Your task to perform on an android device: Go to Maps Image 0: 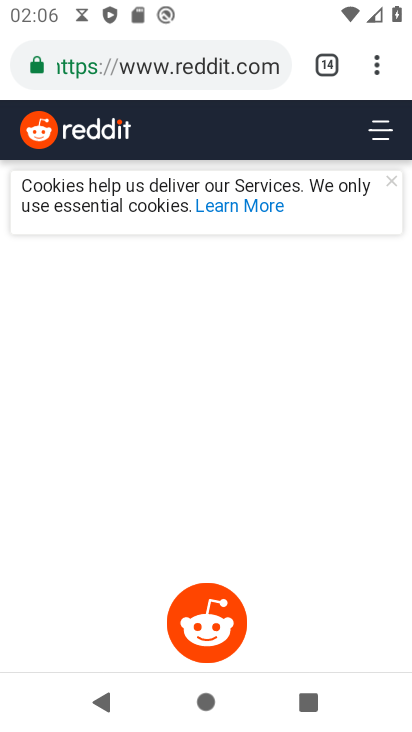
Step 0: press home button
Your task to perform on an android device: Go to Maps Image 1: 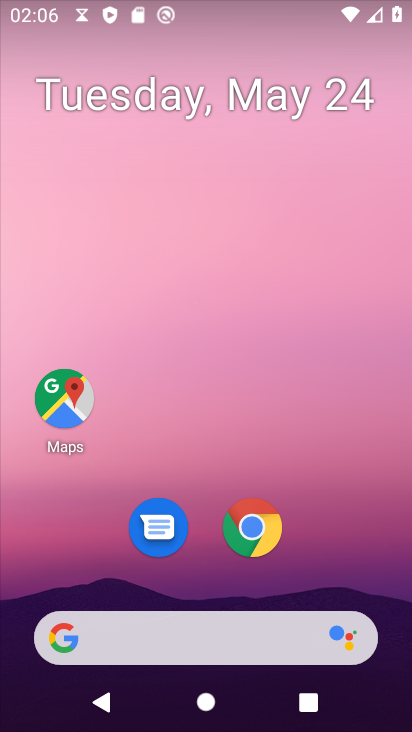
Step 1: click (65, 405)
Your task to perform on an android device: Go to Maps Image 2: 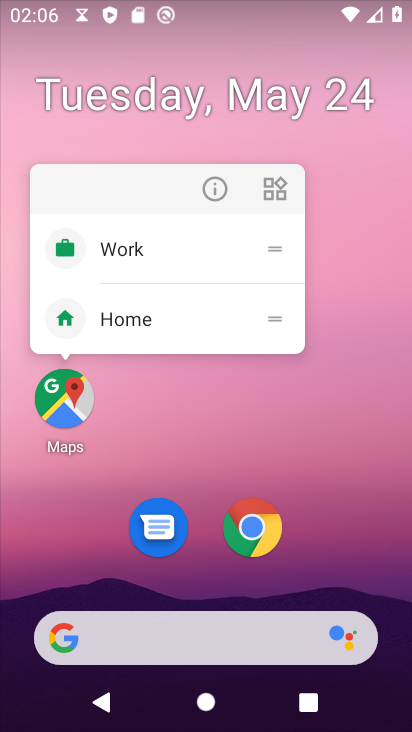
Step 2: click (68, 415)
Your task to perform on an android device: Go to Maps Image 3: 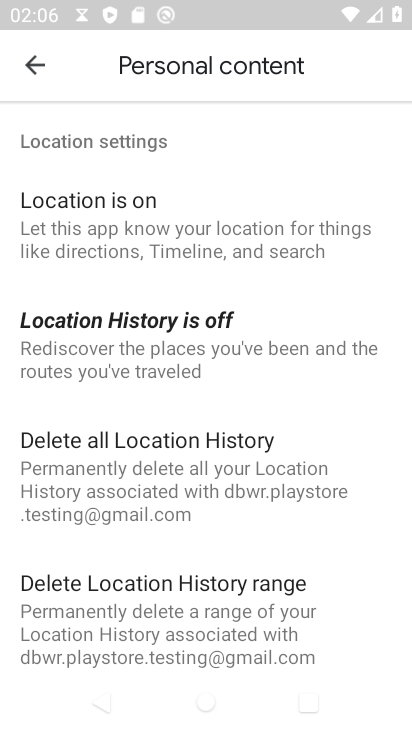
Step 3: click (36, 72)
Your task to perform on an android device: Go to Maps Image 4: 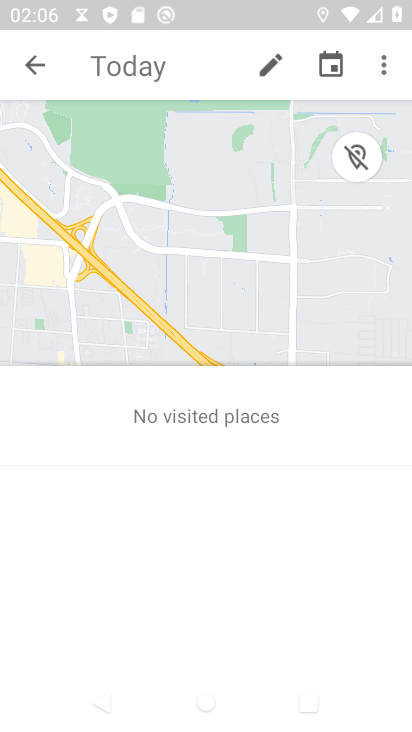
Step 4: task complete